Your task to perform on an android device: Go to display settings Image 0: 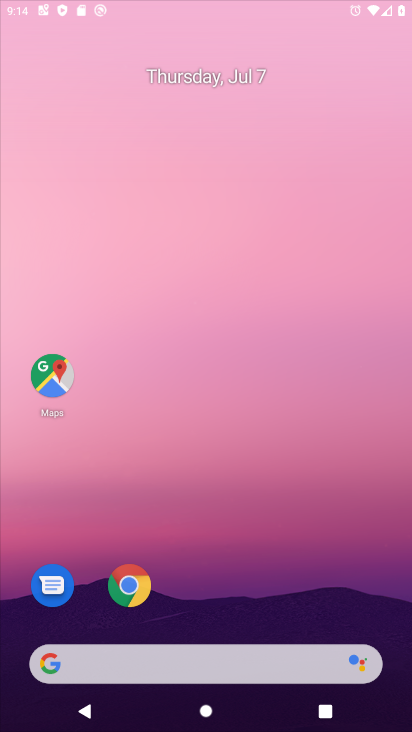
Step 0: press home button
Your task to perform on an android device: Go to display settings Image 1: 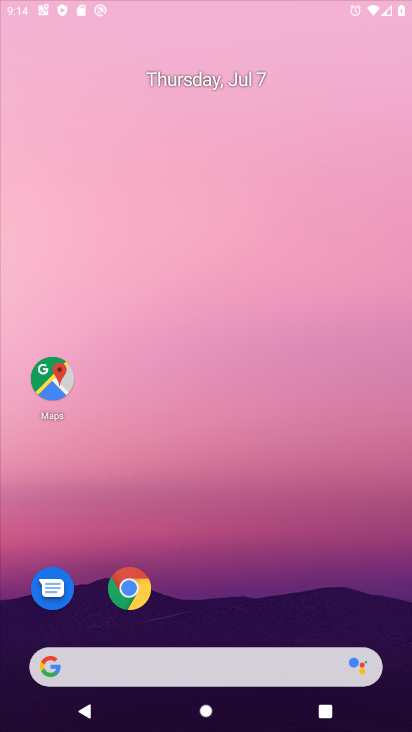
Step 1: click (126, 579)
Your task to perform on an android device: Go to display settings Image 2: 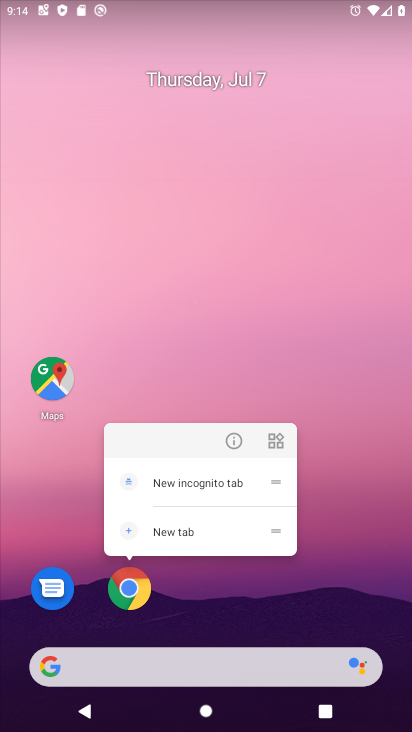
Step 2: click (329, 566)
Your task to perform on an android device: Go to display settings Image 3: 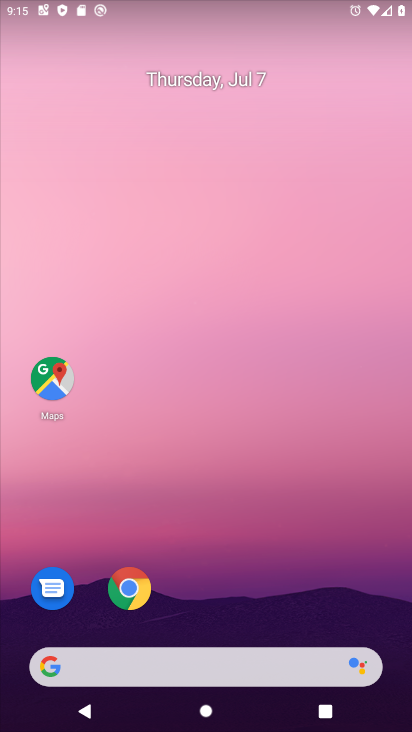
Step 3: drag from (213, 627) to (225, 2)
Your task to perform on an android device: Go to display settings Image 4: 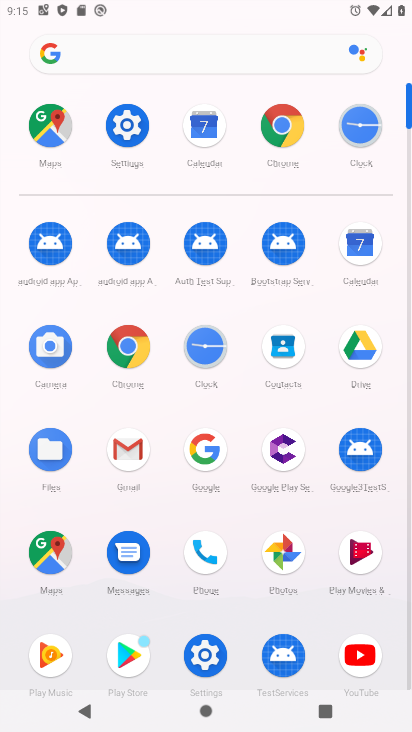
Step 4: click (127, 113)
Your task to perform on an android device: Go to display settings Image 5: 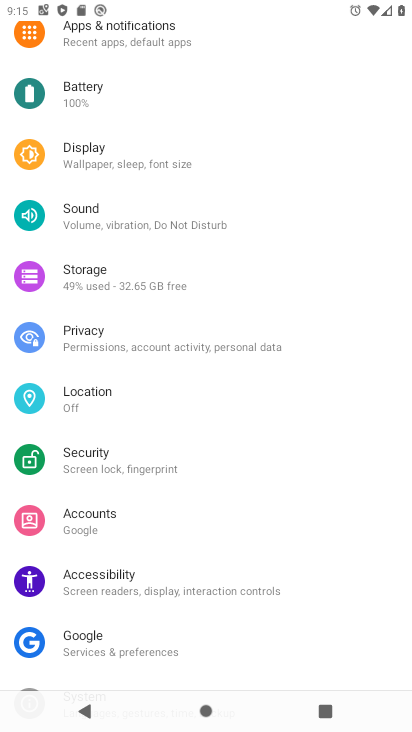
Step 5: click (107, 152)
Your task to perform on an android device: Go to display settings Image 6: 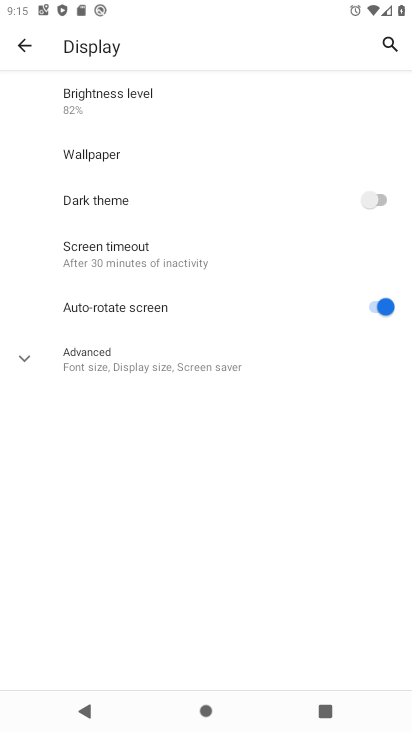
Step 6: click (40, 358)
Your task to perform on an android device: Go to display settings Image 7: 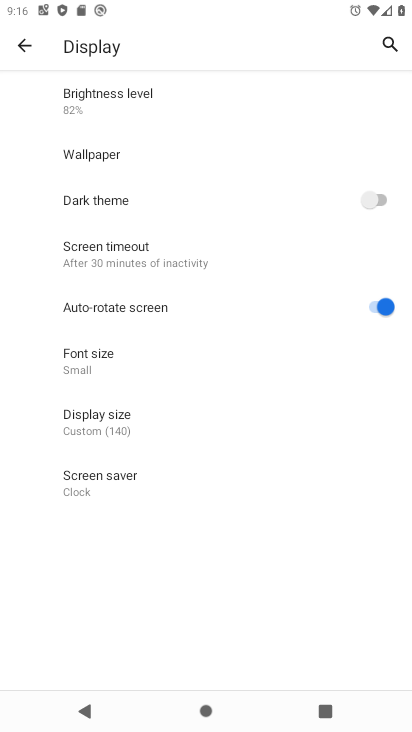
Step 7: task complete